Your task to perform on an android device: Go to privacy settings Image 0: 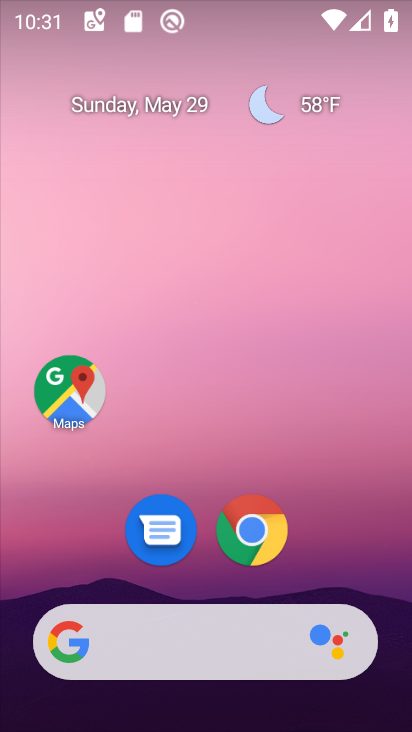
Step 0: drag from (249, 643) to (203, 85)
Your task to perform on an android device: Go to privacy settings Image 1: 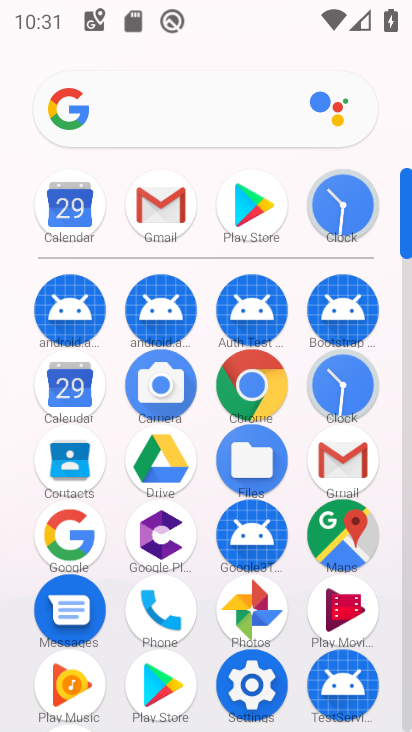
Step 1: click (248, 675)
Your task to perform on an android device: Go to privacy settings Image 2: 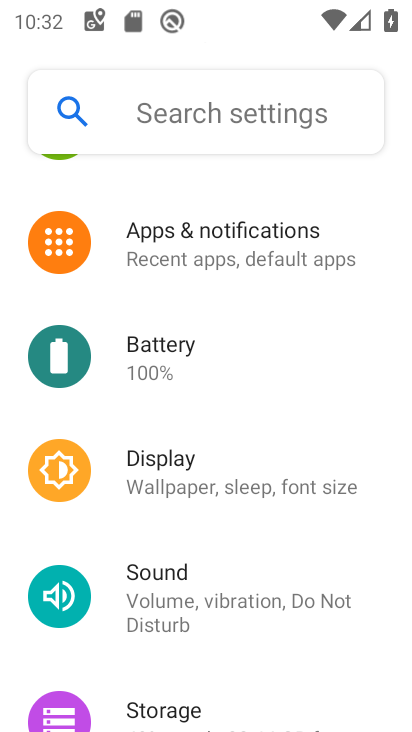
Step 2: drag from (228, 681) to (215, 197)
Your task to perform on an android device: Go to privacy settings Image 3: 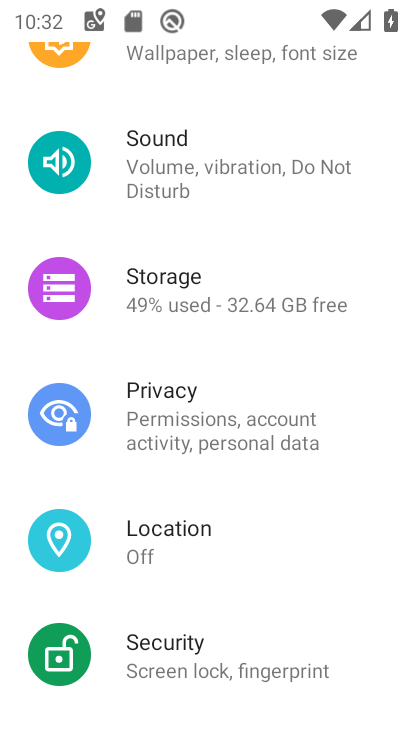
Step 3: click (171, 407)
Your task to perform on an android device: Go to privacy settings Image 4: 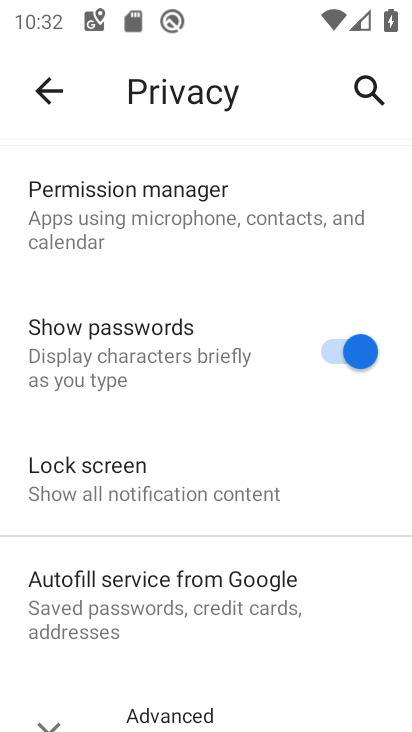
Step 4: task complete